Your task to perform on an android device: Open display settings Image 0: 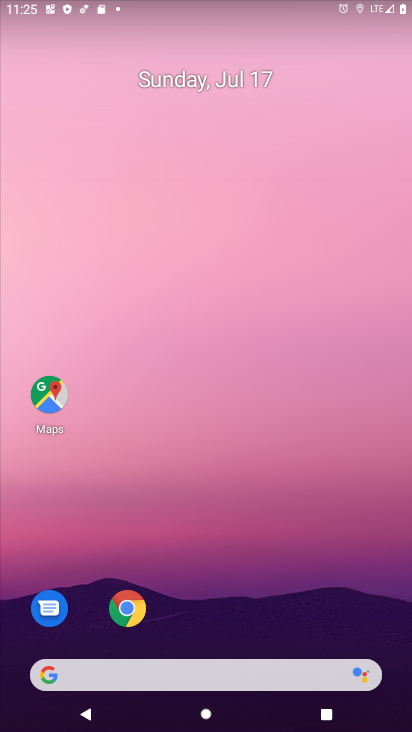
Step 0: drag from (207, 645) to (298, 5)
Your task to perform on an android device: Open display settings Image 1: 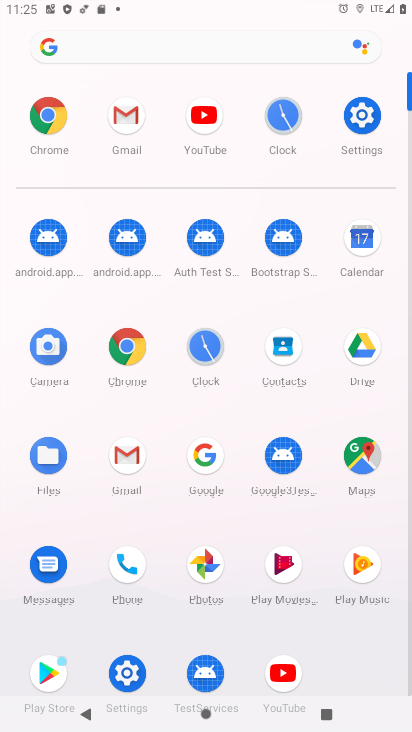
Step 1: click (364, 113)
Your task to perform on an android device: Open display settings Image 2: 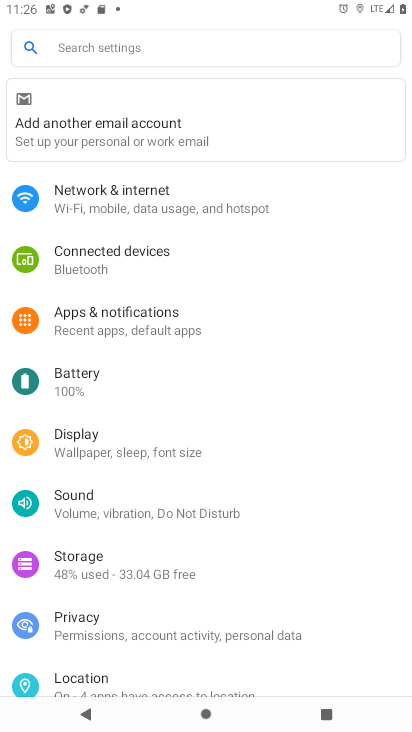
Step 2: click (75, 451)
Your task to perform on an android device: Open display settings Image 3: 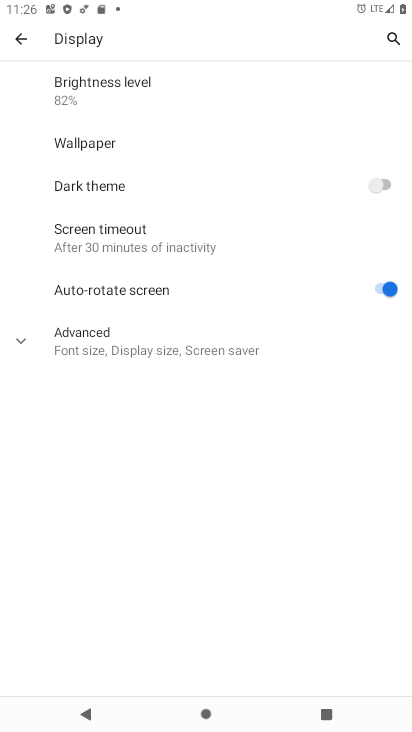
Step 3: click (68, 351)
Your task to perform on an android device: Open display settings Image 4: 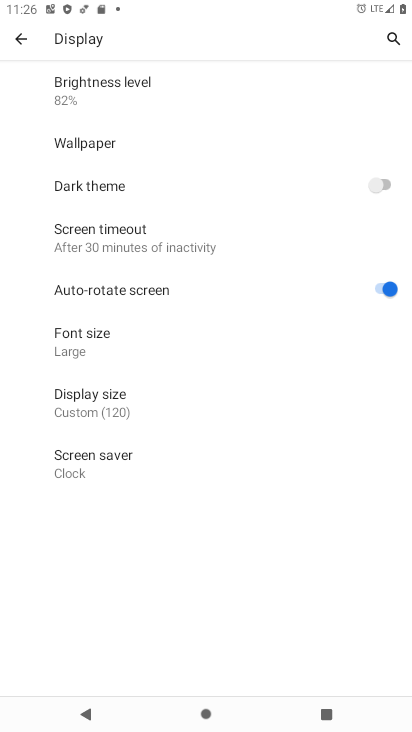
Step 4: task complete